Your task to perform on an android device: Search for Mexican restaurants on Maps Image 0: 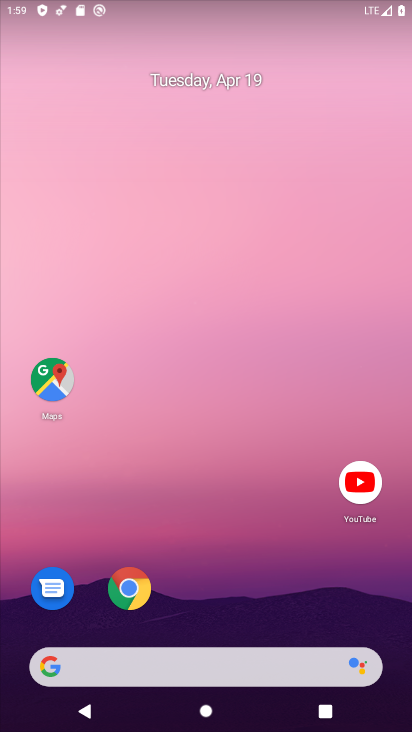
Step 0: click (42, 364)
Your task to perform on an android device: Search for Mexican restaurants on Maps Image 1: 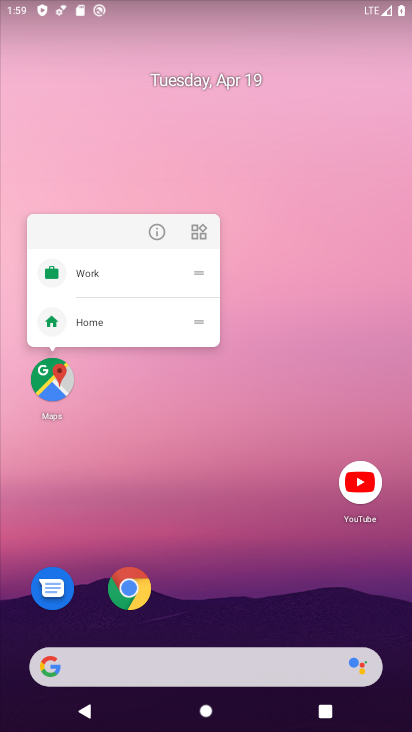
Step 1: click (45, 383)
Your task to perform on an android device: Search for Mexican restaurants on Maps Image 2: 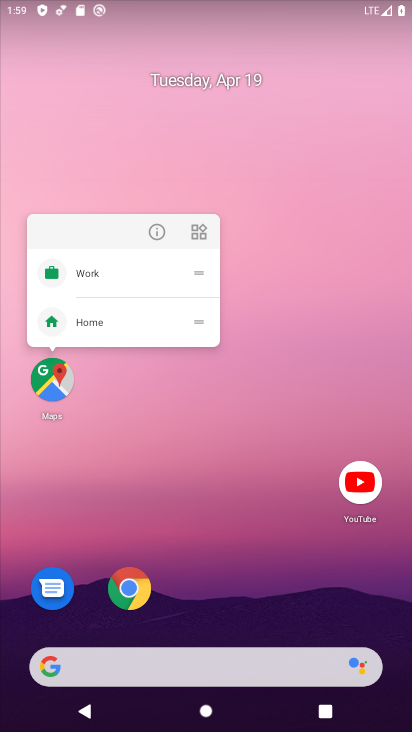
Step 2: click (45, 383)
Your task to perform on an android device: Search for Mexican restaurants on Maps Image 3: 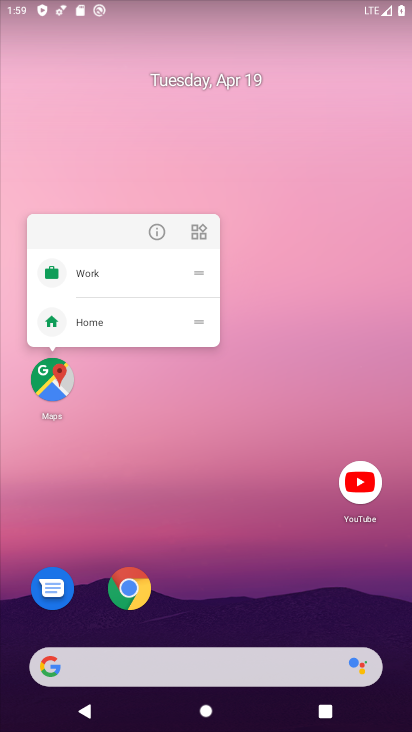
Step 3: click (46, 385)
Your task to perform on an android device: Search for Mexican restaurants on Maps Image 4: 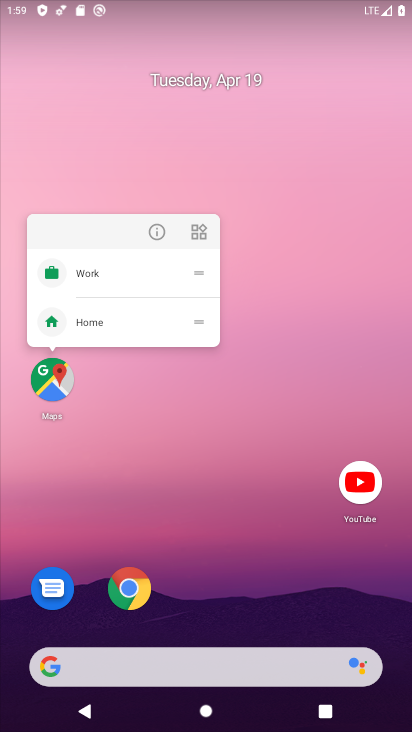
Step 4: click (55, 388)
Your task to perform on an android device: Search for Mexican restaurants on Maps Image 5: 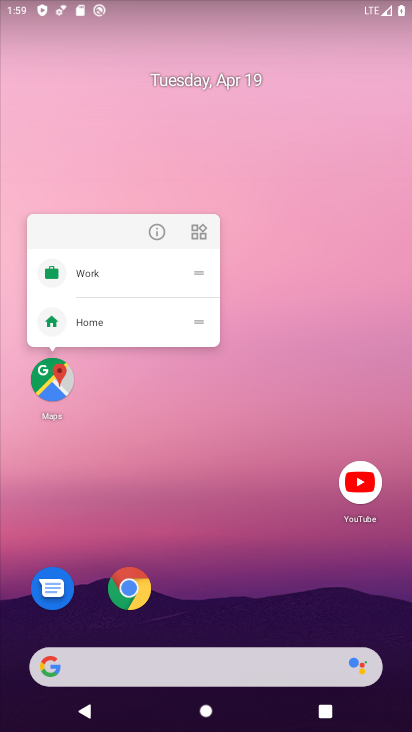
Step 5: click (55, 388)
Your task to perform on an android device: Search for Mexican restaurants on Maps Image 6: 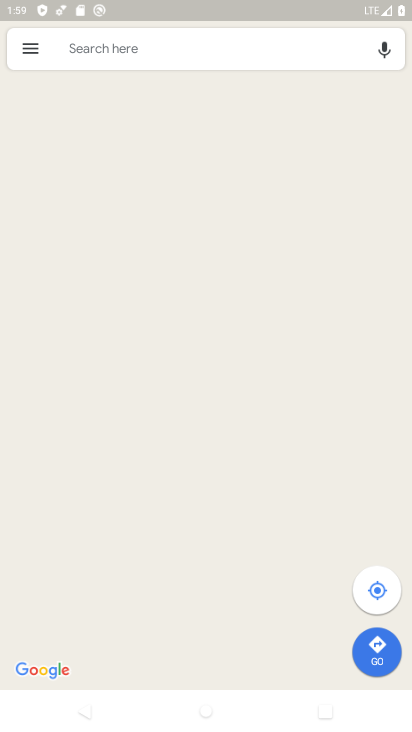
Step 6: click (211, 49)
Your task to perform on an android device: Search for Mexican restaurants on Maps Image 7: 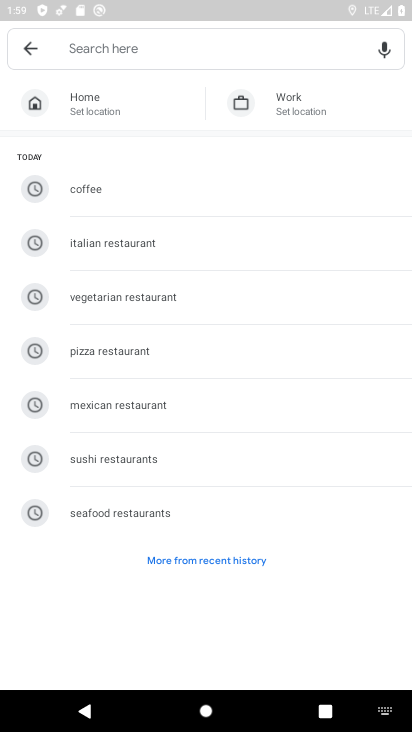
Step 7: type "mexican restaurant"
Your task to perform on an android device: Search for Mexican restaurants on Maps Image 8: 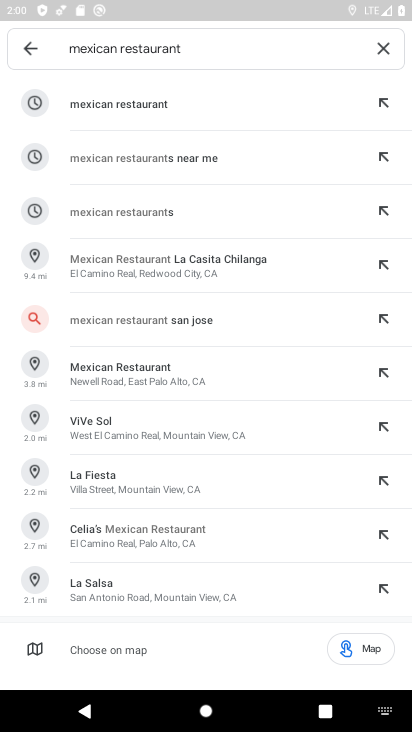
Step 8: click (128, 97)
Your task to perform on an android device: Search for Mexican restaurants on Maps Image 9: 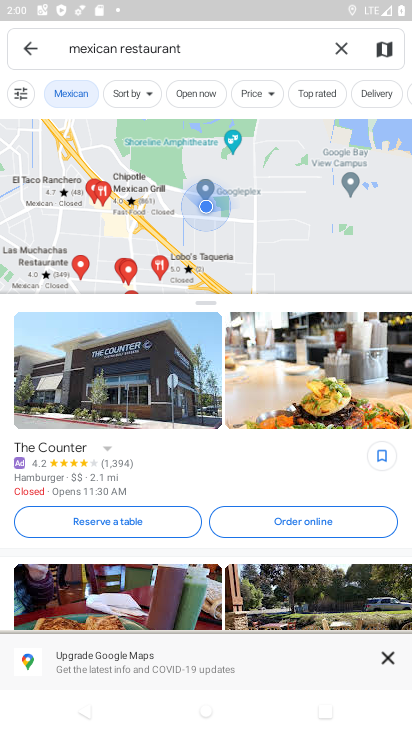
Step 9: task complete